Your task to perform on an android device: Open Android settings Image 0: 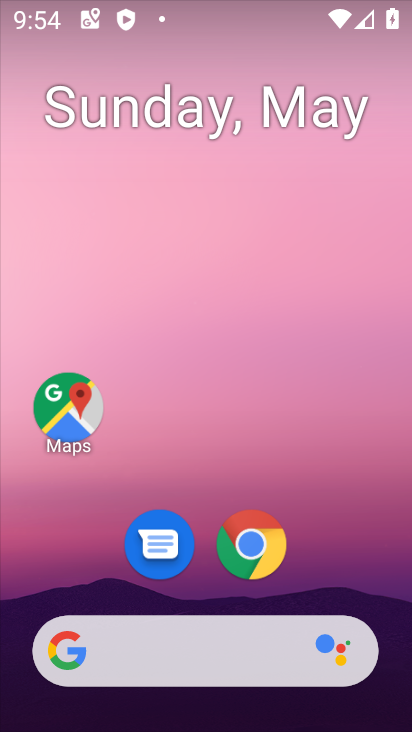
Step 0: drag from (358, 523) to (382, 49)
Your task to perform on an android device: Open Android settings Image 1: 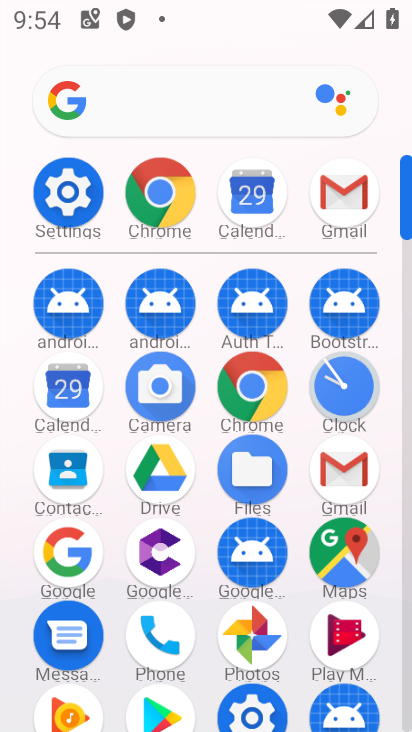
Step 1: click (68, 187)
Your task to perform on an android device: Open Android settings Image 2: 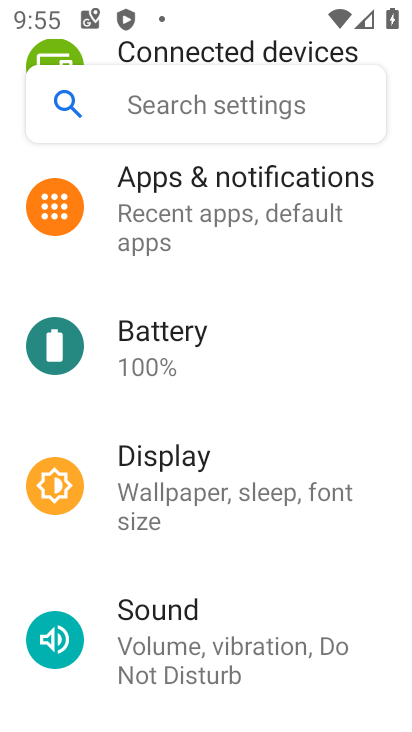
Step 2: task complete